Your task to perform on an android device: Open eBay Image 0: 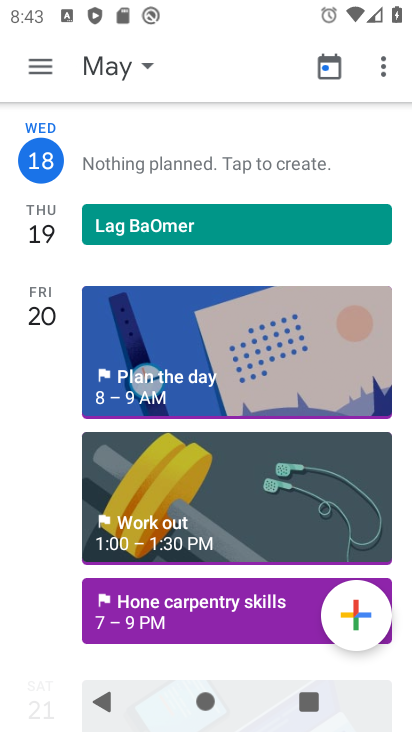
Step 0: press home button
Your task to perform on an android device: Open eBay Image 1: 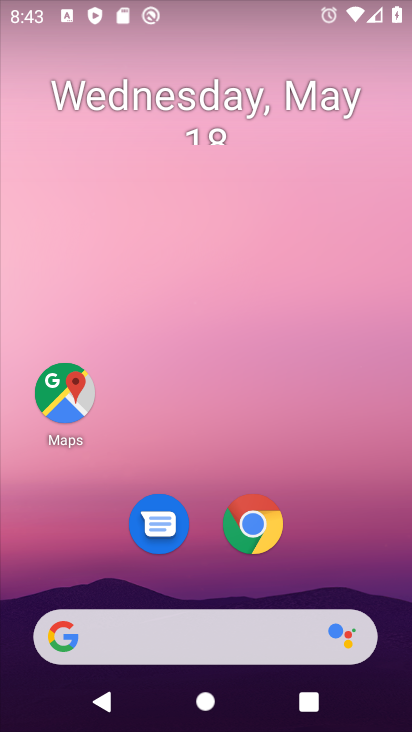
Step 1: click (262, 647)
Your task to perform on an android device: Open eBay Image 2: 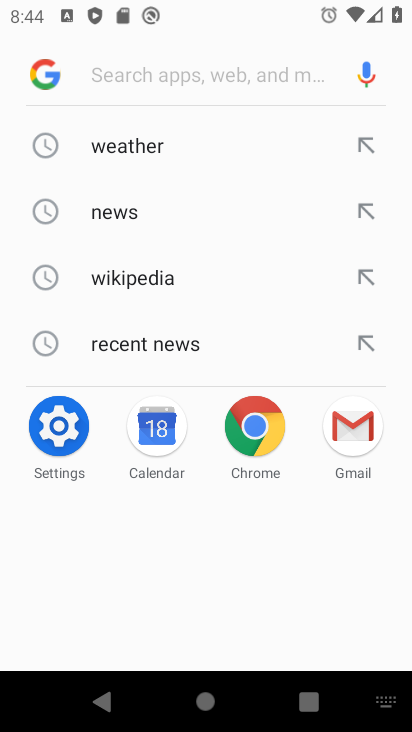
Step 2: type "ebay"
Your task to perform on an android device: Open eBay Image 3: 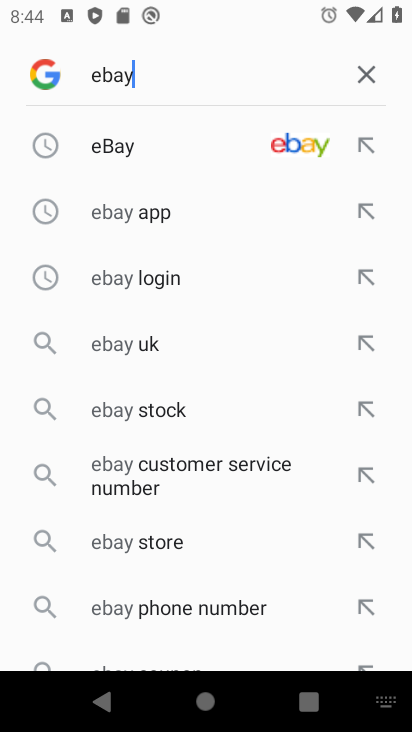
Step 3: click (105, 146)
Your task to perform on an android device: Open eBay Image 4: 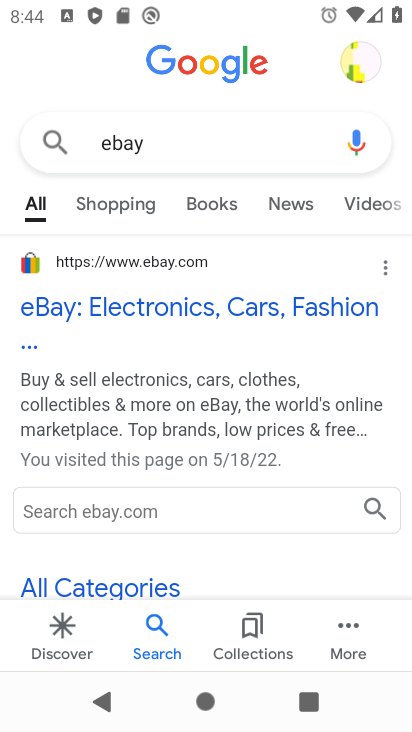
Step 4: click (64, 307)
Your task to perform on an android device: Open eBay Image 5: 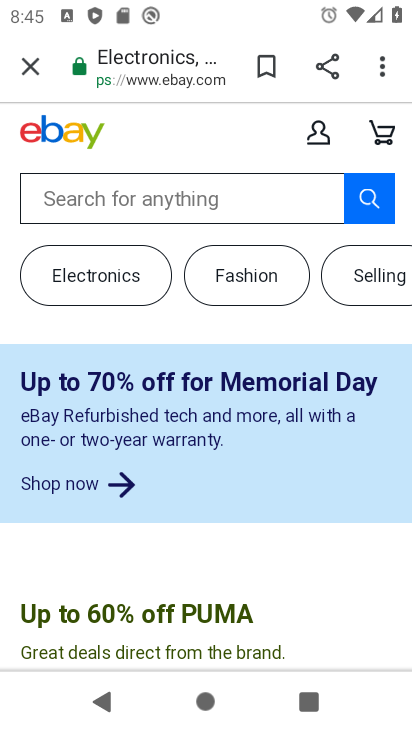
Step 5: task complete